Your task to perform on an android device: Open the web browser Image 0: 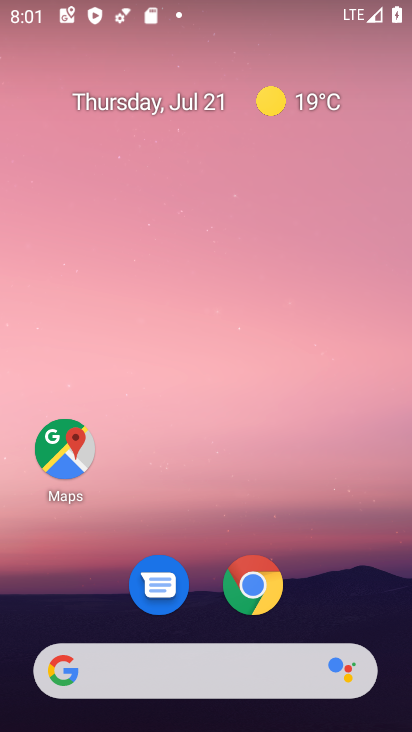
Step 0: click (269, 672)
Your task to perform on an android device: Open the web browser Image 1: 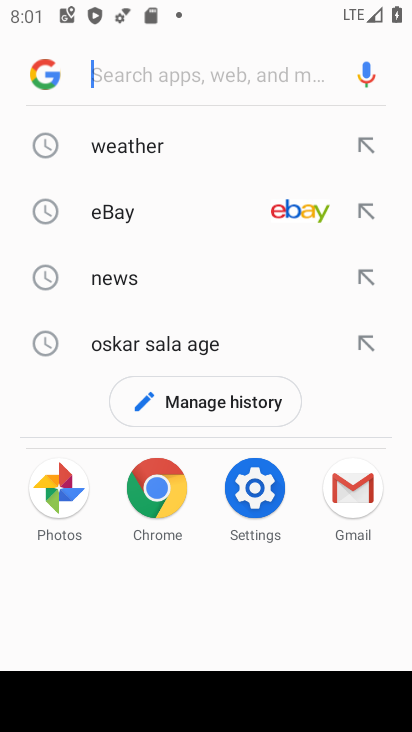
Step 1: task complete